Your task to perform on an android device: Check the news Image 0: 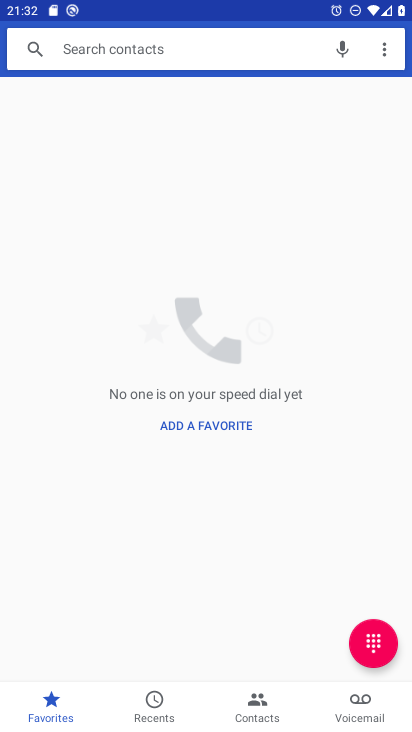
Step 0: press home button
Your task to perform on an android device: Check the news Image 1: 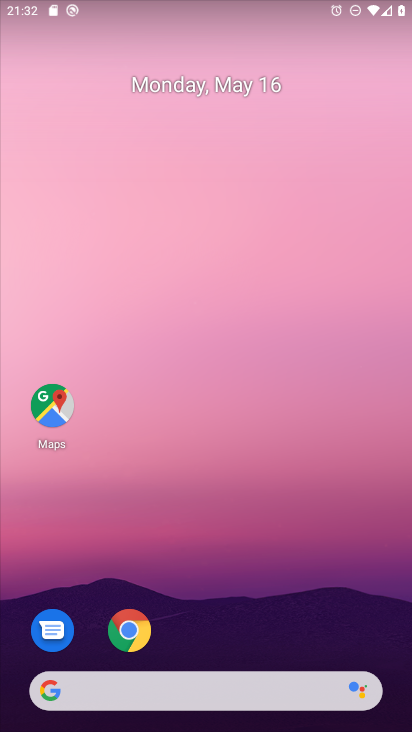
Step 1: click (83, 682)
Your task to perform on an android device: Check the news Image 2: 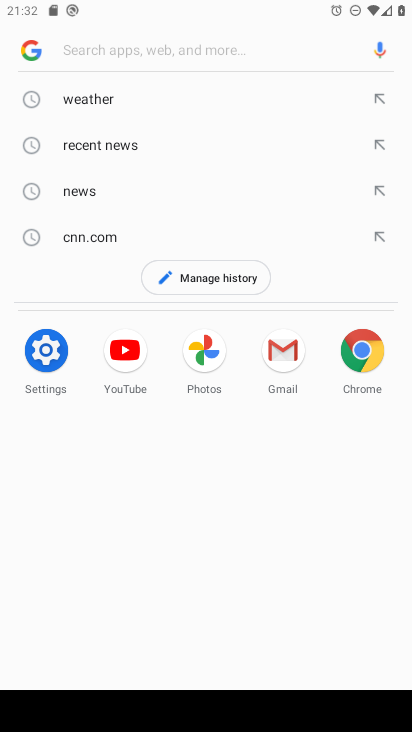
Step 2: click (78, 189)
Your task to perform on an android device: Check the news Image 3: 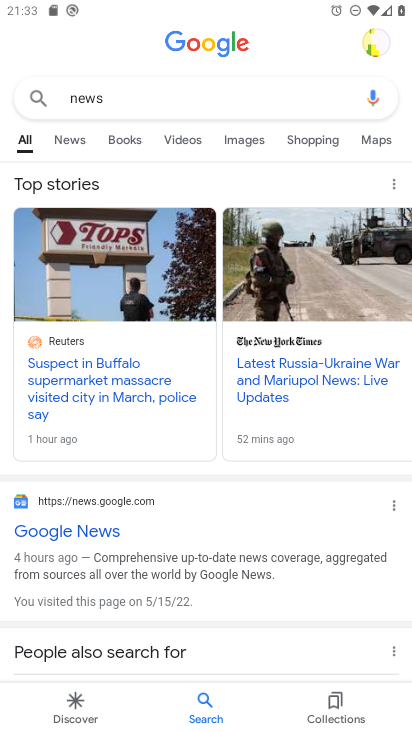
Step 3: task complete